Your task to perform on an android device: Open Youtube and go to "Your channel" Image 0: 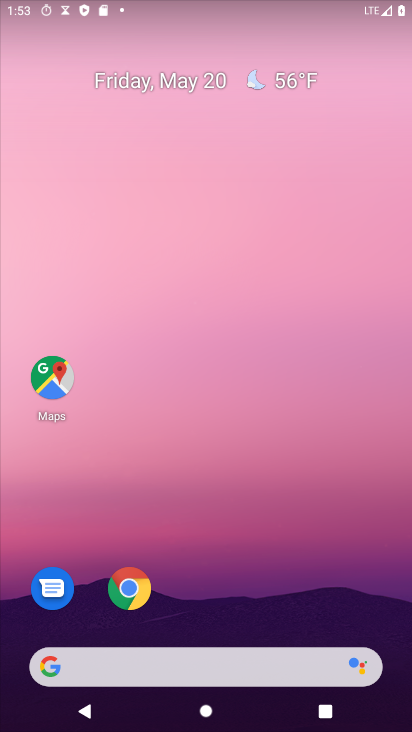
Step 0: drag from (40, 590) to (280, 154)
Your task to perform on an android device: Open Youtube and go to "Your channel" Image 1: 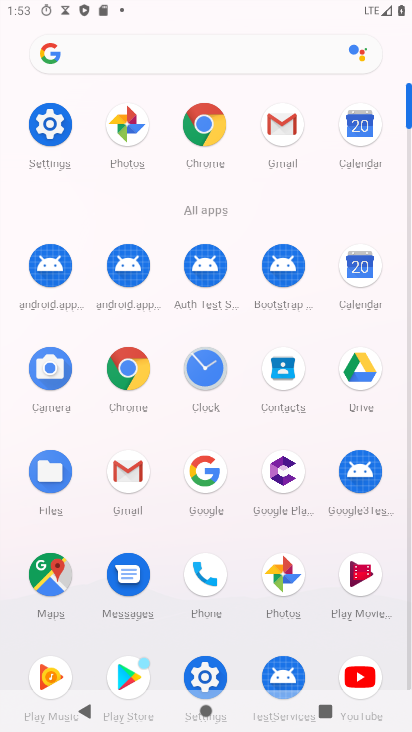
Step 1: click (349, 673)
Your task to perform on an android device: Open Youtube and go to "Your channel" Image 2: 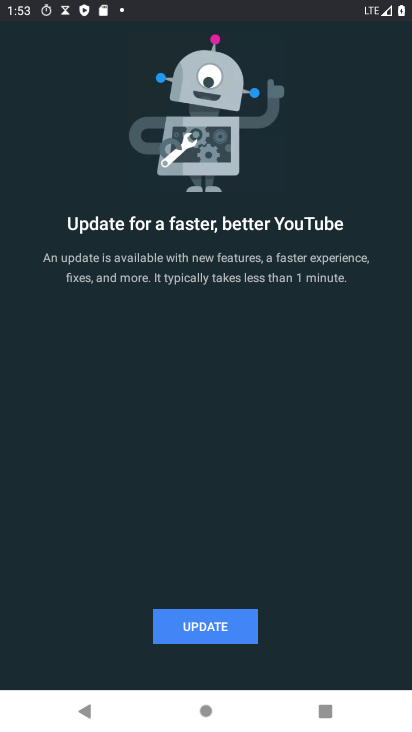
Step 2: task complete